Your task to perform on an android device: allow cookies in the chrome app Image 0: 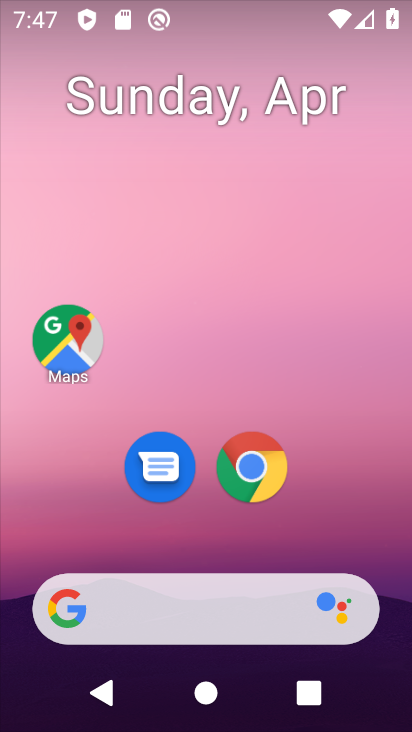
Step 0: click (223, 481)
Your task to perform on an android device: allow cookies in the chrome app Image 1: 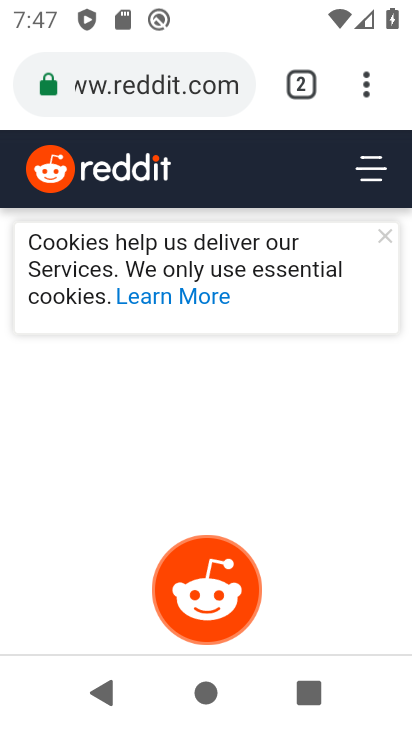
Step 1: click (364, 89)
Your task to perform on an android device: allow cookies in the chrome app Image 2: 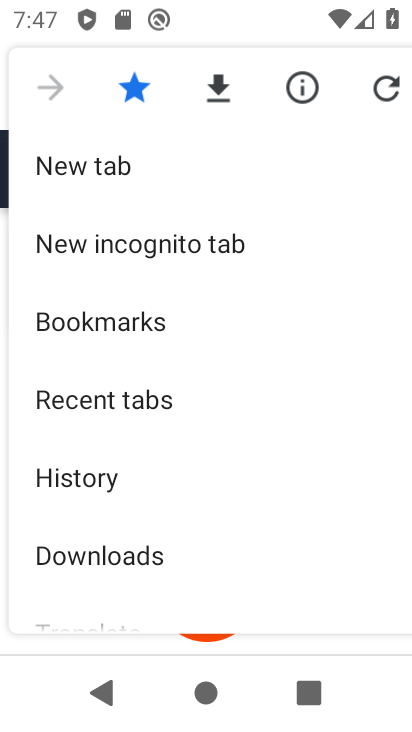
Step 2: drag from (130, 533) to (206, 182)
Your task to perform on an android device: allow cookies in the chrome app Image 3: 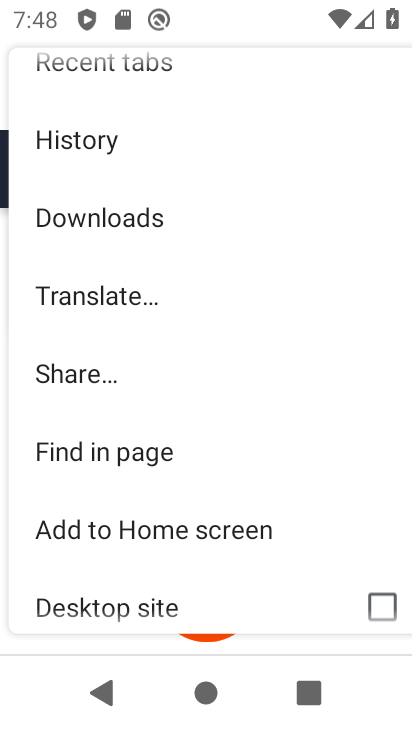
Step 3: drag from (177, 469) to (180, 252)
Your task to perform on an android device: allow cookies in the chrome app Image 4: 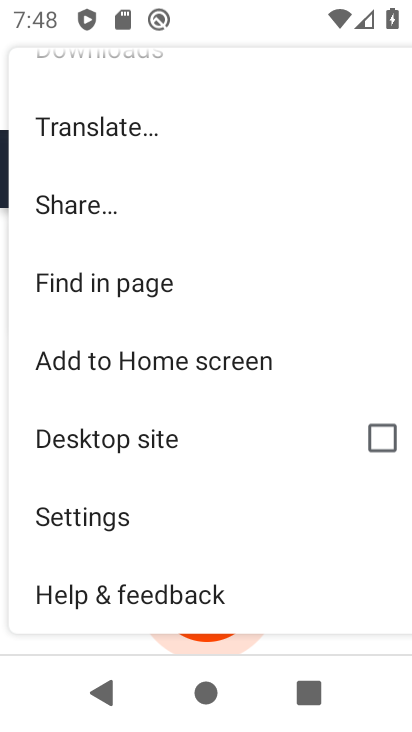
Step 4: click (170, 528)
Your task to perform on an android device: allow cookies in the chrome app Image 5: 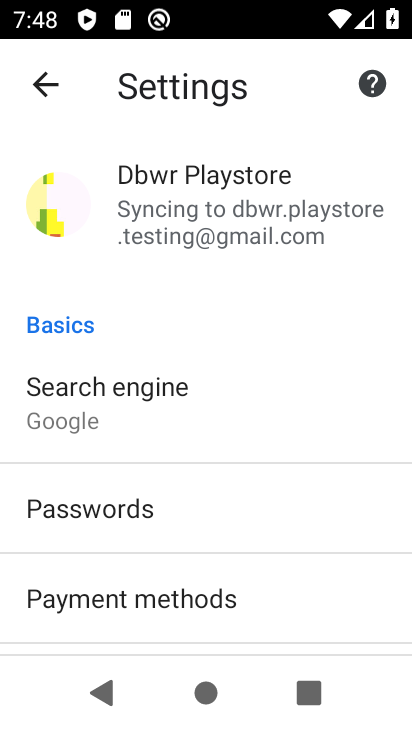
Step 5: drag from (208, 594) to (227, 300)
Your task to perform on an android device: allow cookies in the chrome app Image 6: 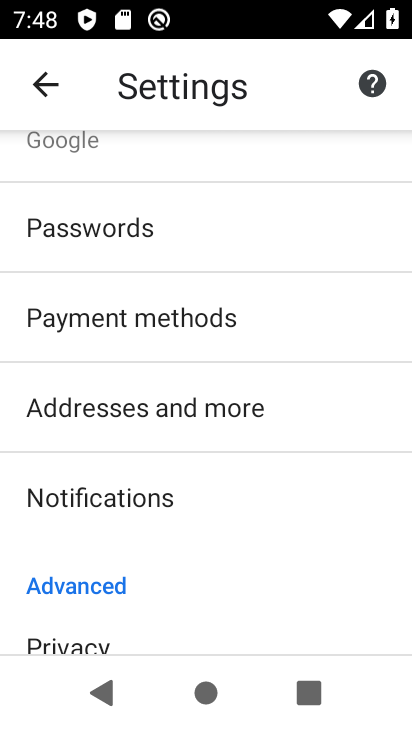
Step 6: drag from (168, 555) to (270, 206)
Your task to perform on an android device: allow cookies in the chrome app Image 7: 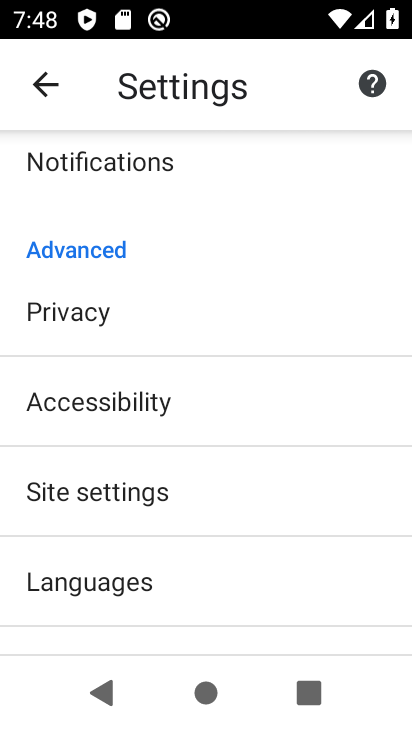
Step 7: click (172, 499)
Your task to perform on an android device: allow cookies in the chrome app Image 8: 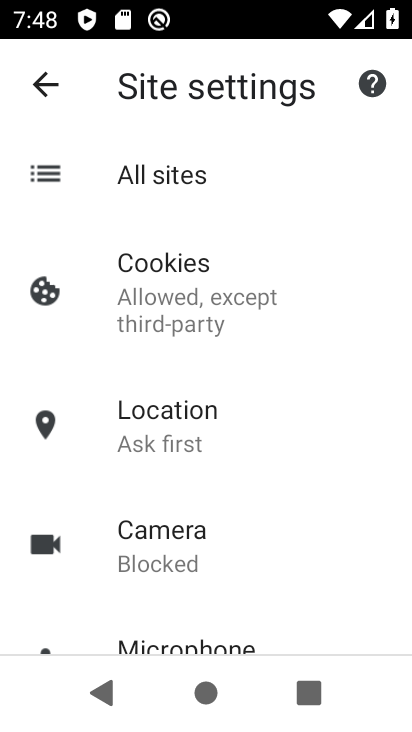
Step 8: click (191, 306)
Your task to perform on an android device: allow cookies in the chrome app Image 9: 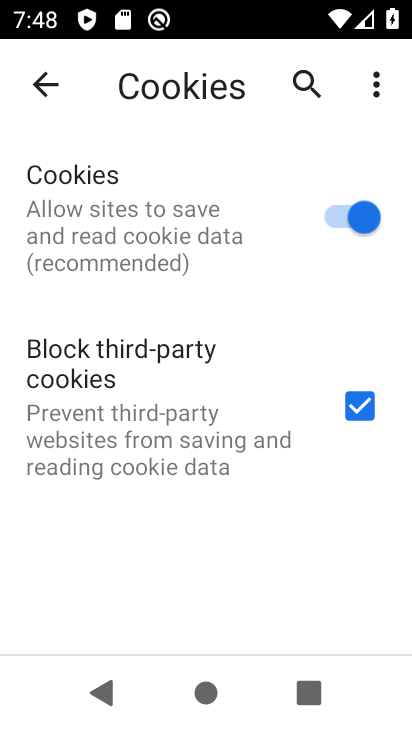
Step 9: task complete